Your task to perform on an android device: uninstall "DuckDuckGo Privacy Browser" Image 0: 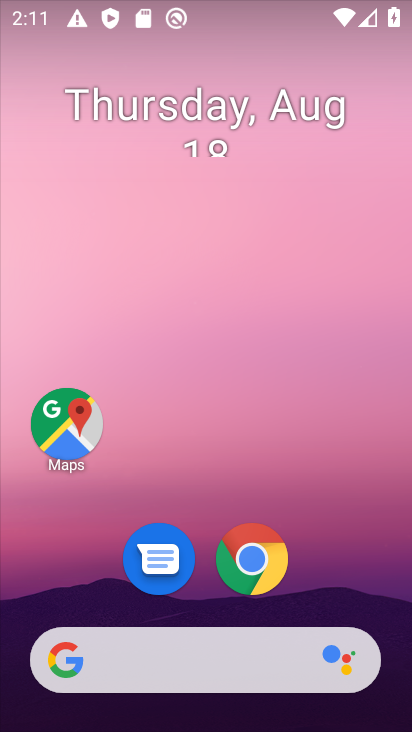
Step 0: drag from (181, 588) to (153, 0)
Your task to perform on an android device: uninstall "DuckDuckGo Privacy Browser" Image 1: 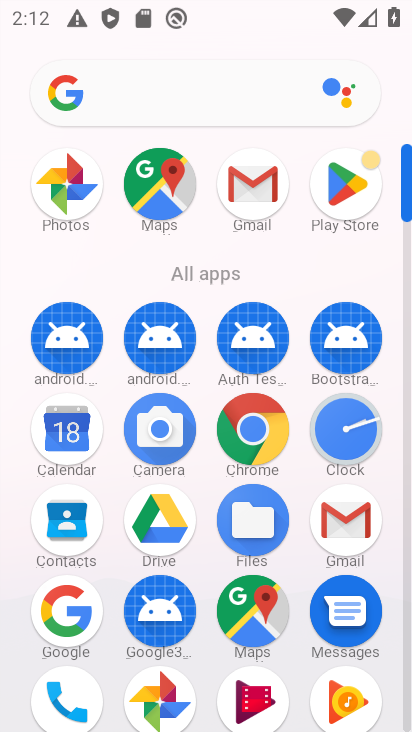
Step 1: click (340, 175)
Your task to perform on an android device: uninstall "DuckDuckGo Privacy Browser" Image 2: 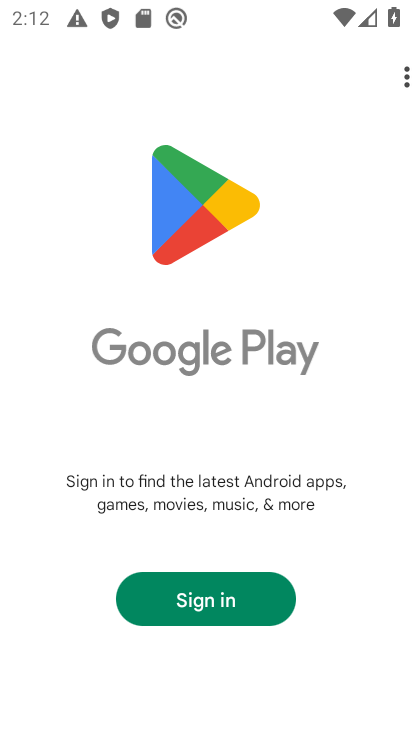
Step 2: click (192, 591)
Your task to perform on an android device: uninstall "DuckDuckGo Privacy Browser" Image 3: 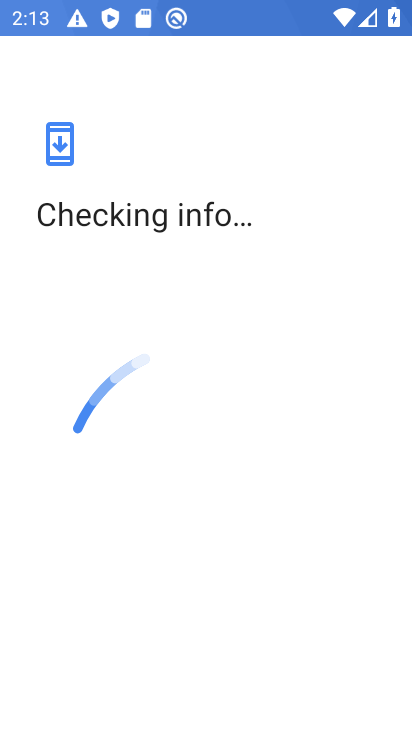
Step 3: task complete